Your task to perform on an android device: Go to display settings Image 0: 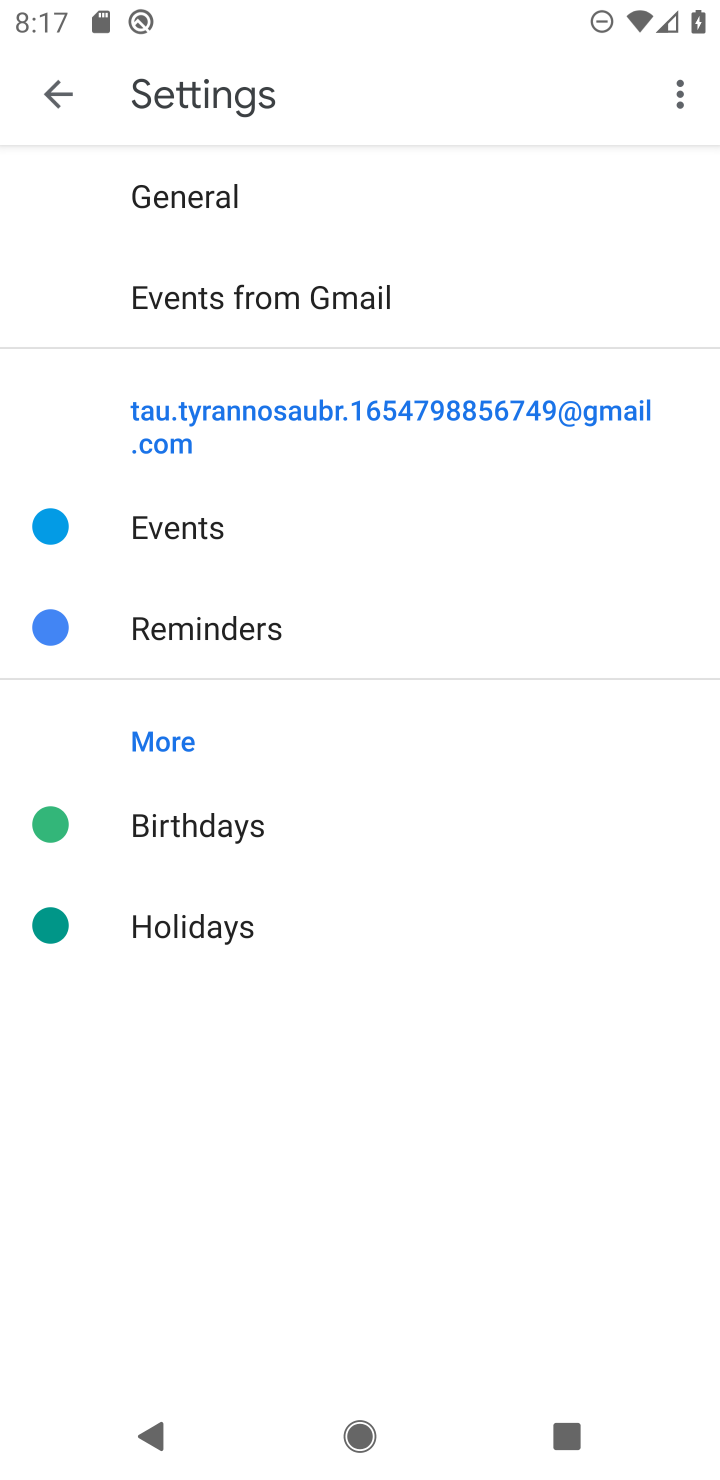
Step 0: press home button
Your task to perform on an android device: Go to display settings Image 1: 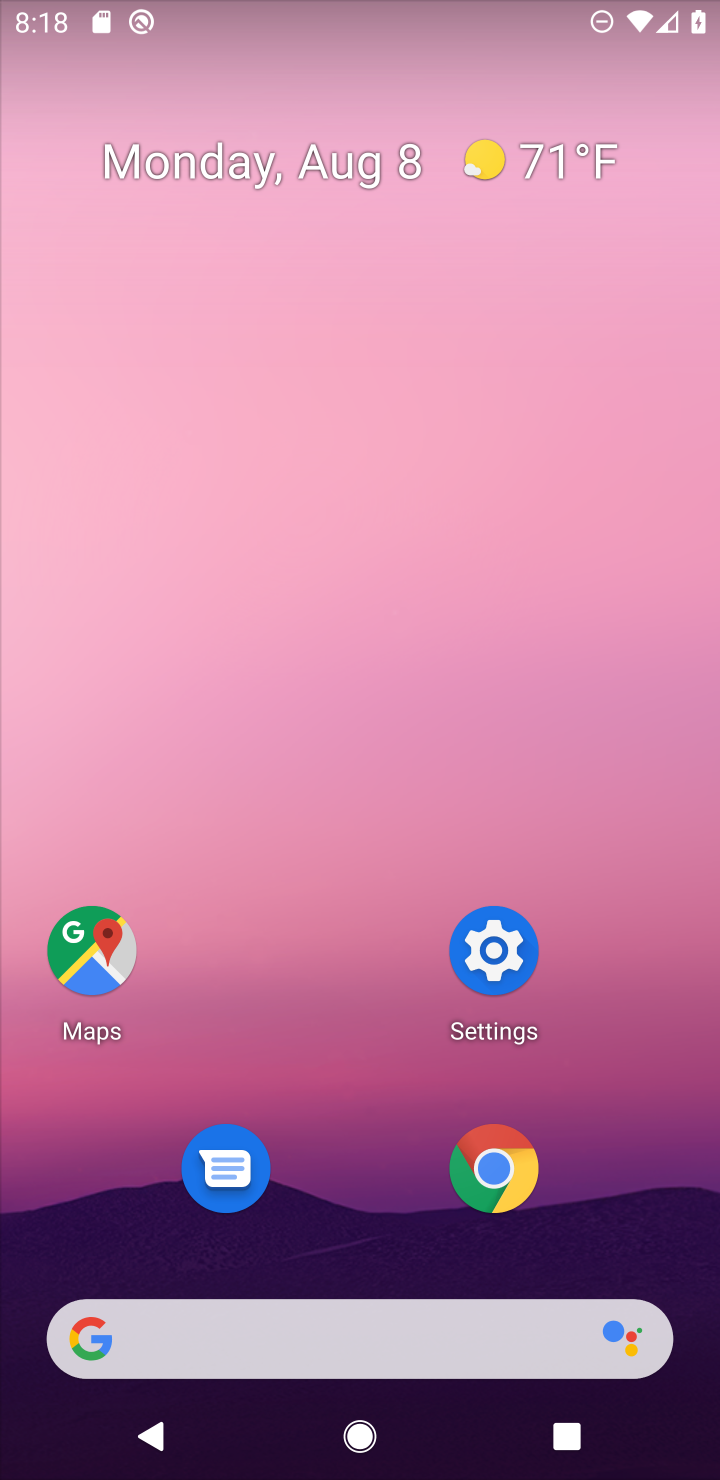
Step 1: drag from (315, 1317) to (473, 279)
Your task to perform on an android device: Go to display settings Image 2: 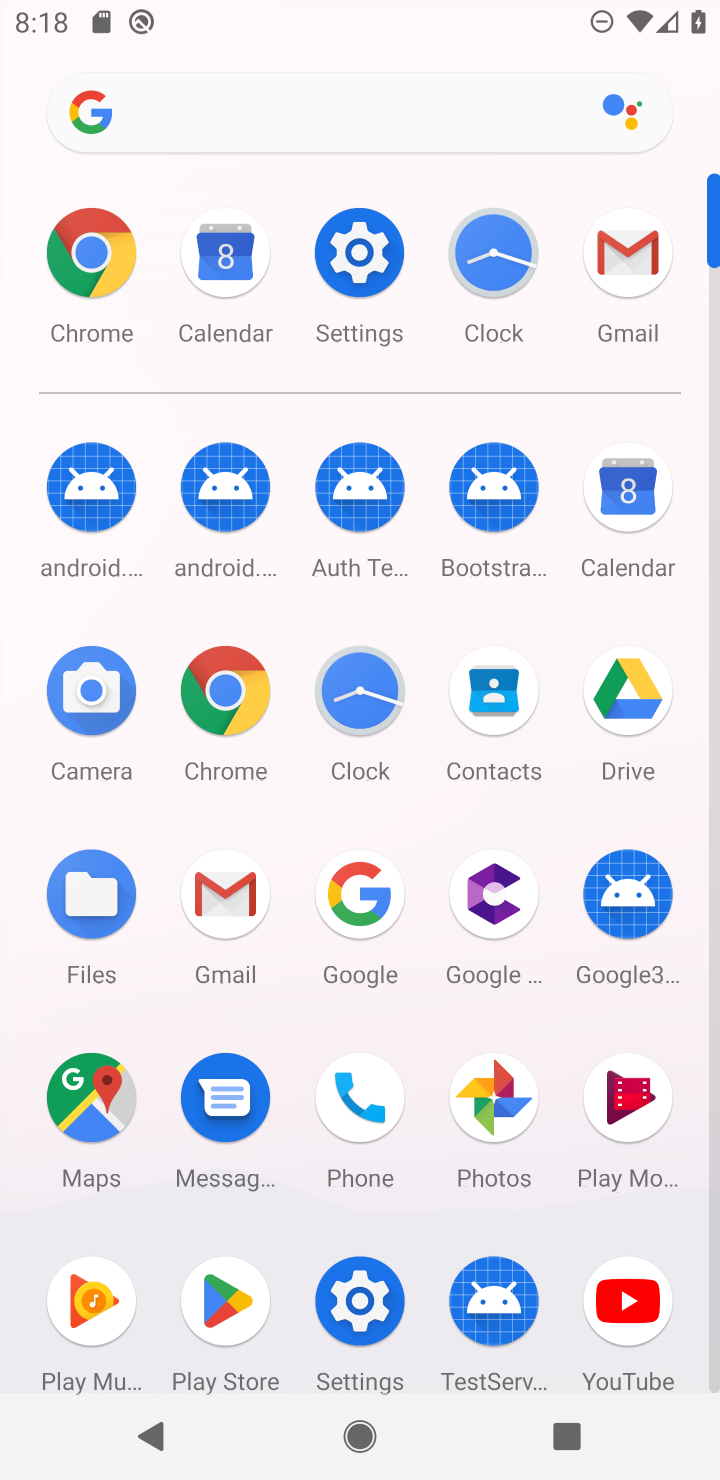
Step 2: click (355, 248)
Your task to perform on an android device: Go to display settings Image 3: 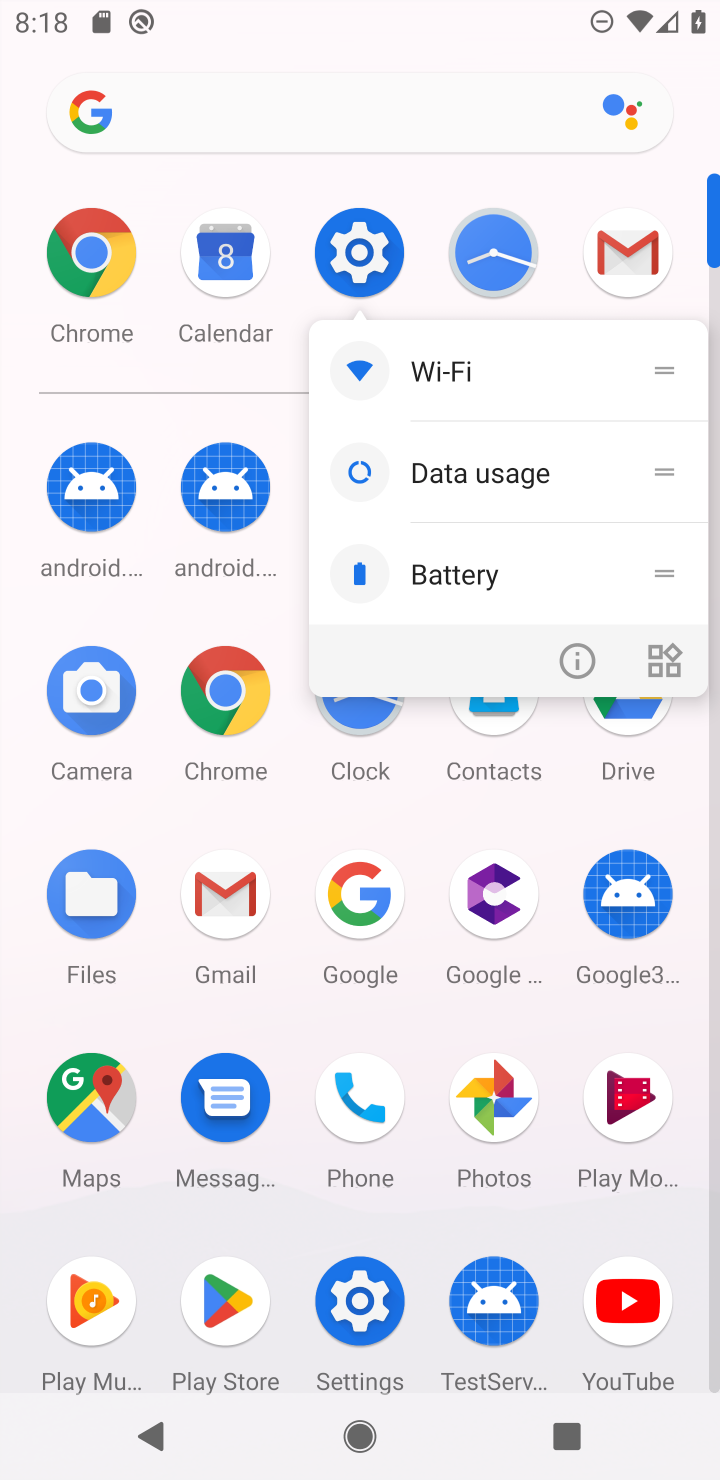
Step 3: click (355, 247)
Your task to perform on an android device: Go to display settings Image 4: 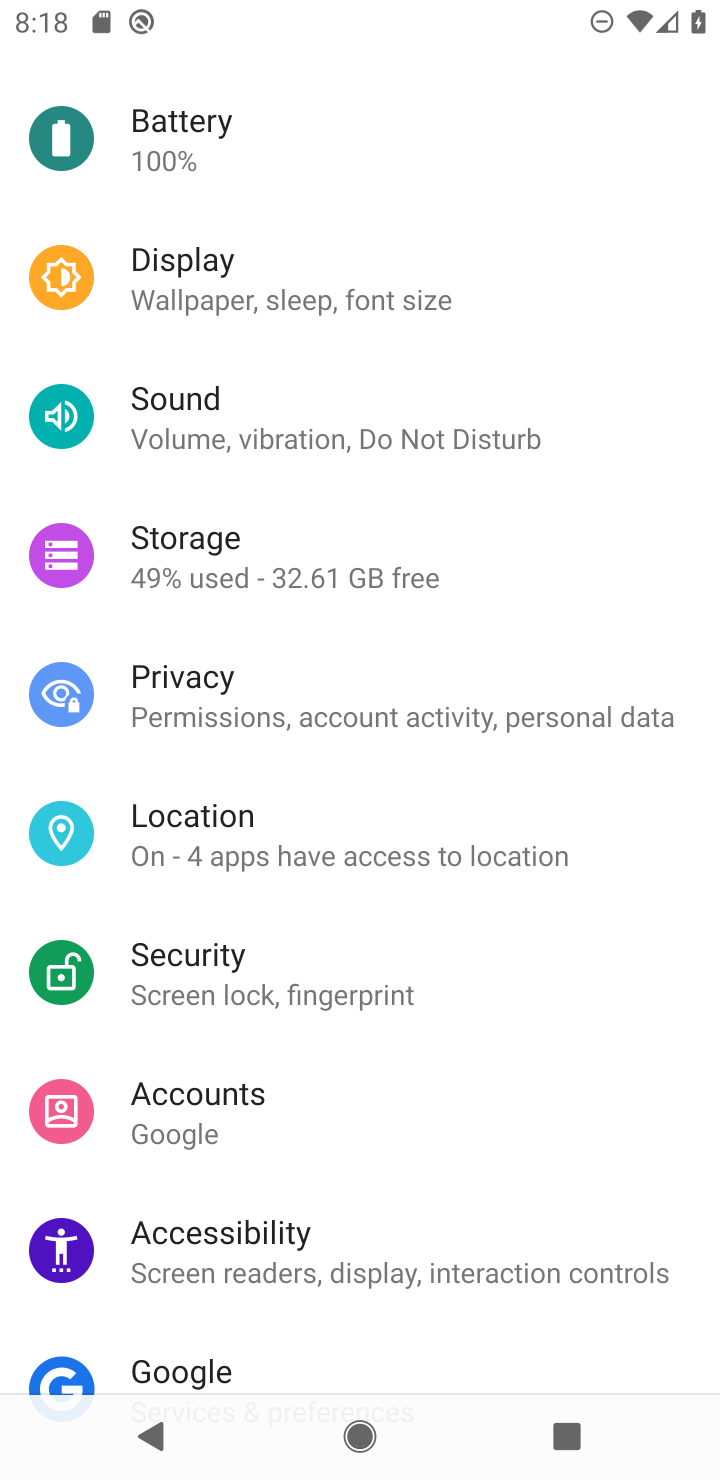
Step 4: click (221, 277)
Your task to perform on an android device: Go to display settings Image 5: 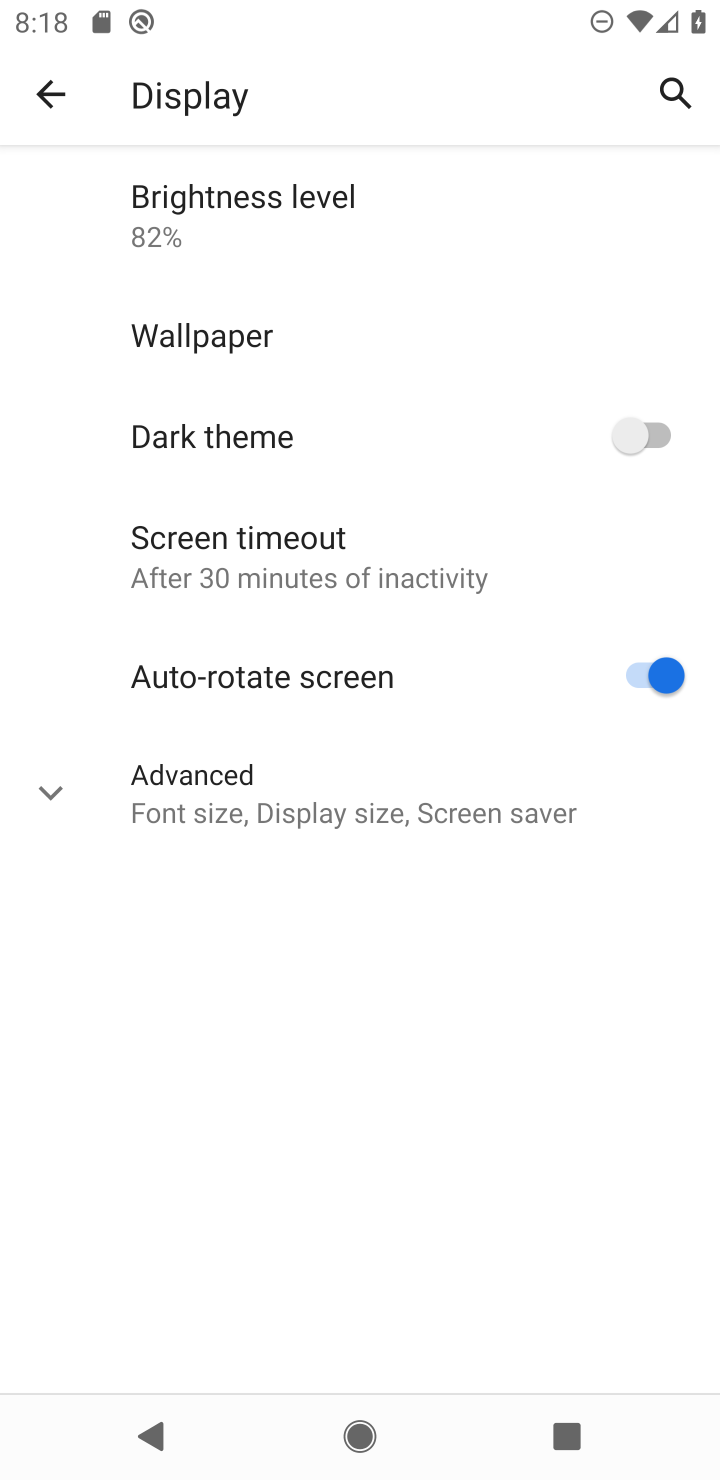
Step 5: task complete